Your task to perform on an android device: Is it going to rain this weekend? Image 0: 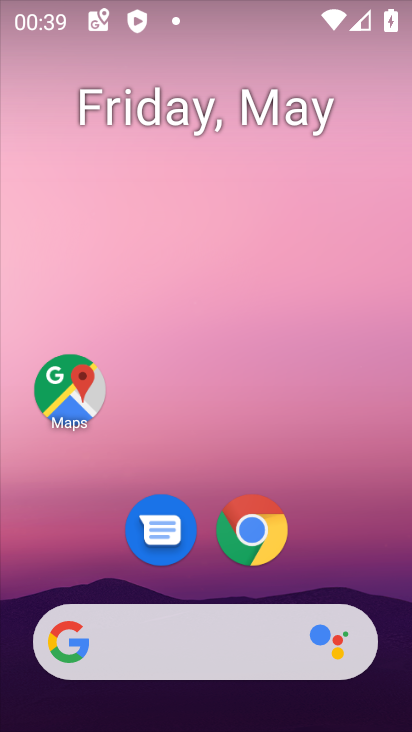
Step 0: drag from (339, 568) to (238, 143)
Your task to perform on an android device: Is it going to rain this weekend? Image 1: 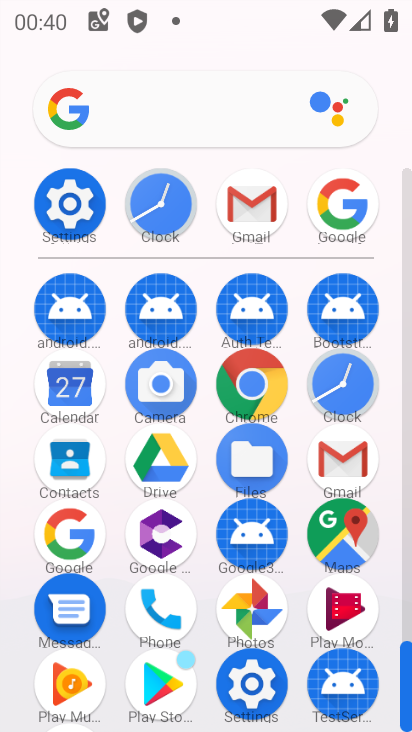
Step 1: click (337, 201)
Your task to perform on an android device: Is it going to rain this weekend? Image 2: 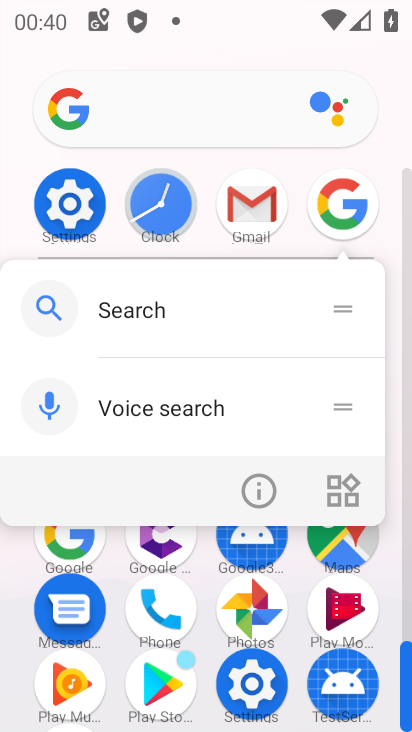
Step 2: click (337, 201)
Your task to perform on an android device: Is it going to rain this weekend? Image 3: 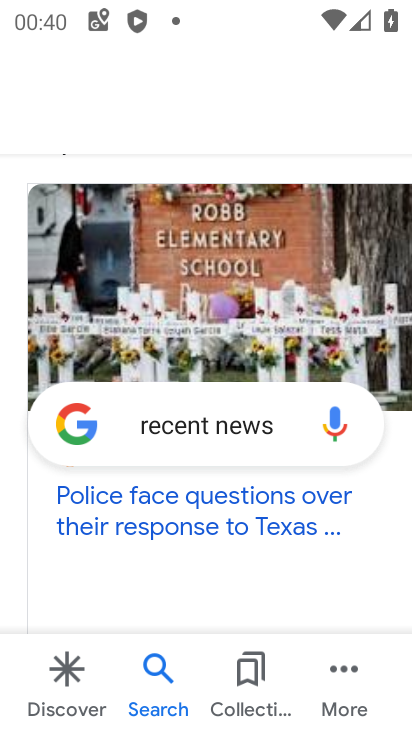
Step 3: click (273, 431)
Your task to perform on an android device: Is it going to rain this weekend? Image 4: 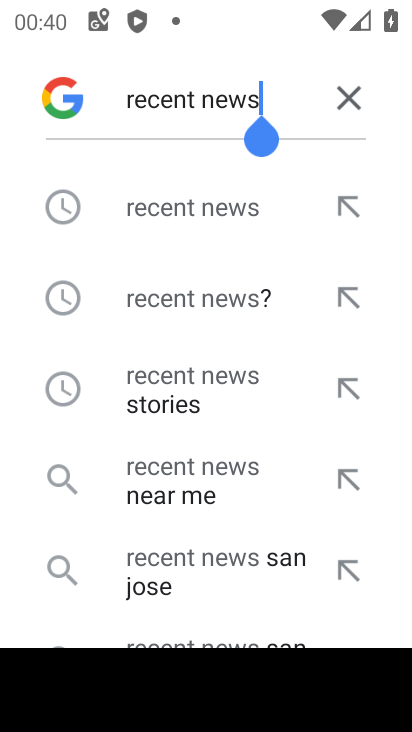
Step 4: click (351, 91)
Your task to perform on an android device: Is it going to rain this weekend? Image 5: 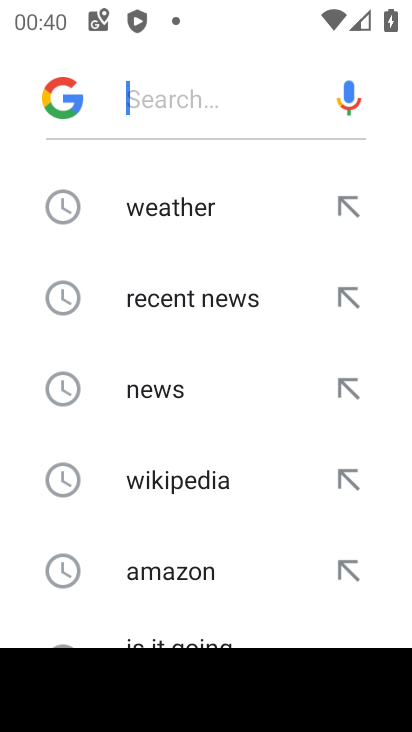
Step 5: type "Is it going to rain this weekend"
Your task to perform on an android device: Is it going to rain this weekend? Image 6: 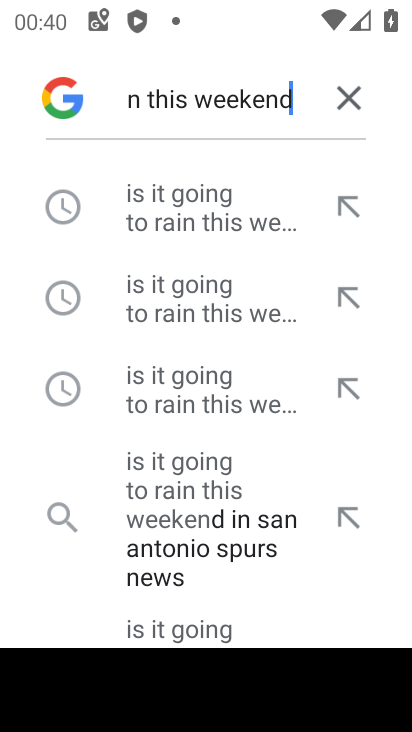
Step 6: type ""
Your task to perform on an android device: Is it going to rain this weekend? Image 7: 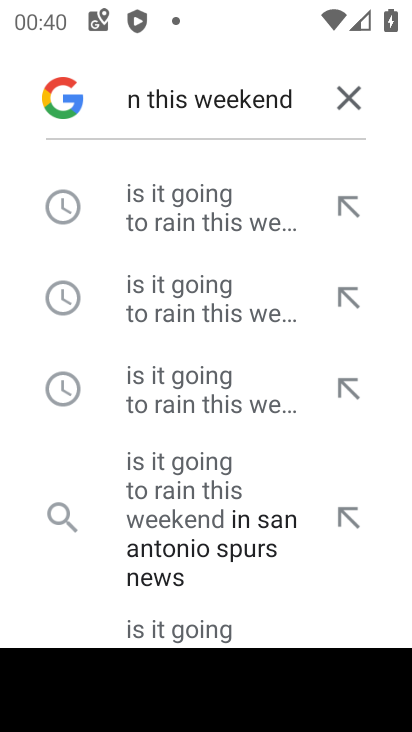
Step 7: click (215, 233)
Your task to perform on an android device: Is it going to rain this weekend? Image 8: 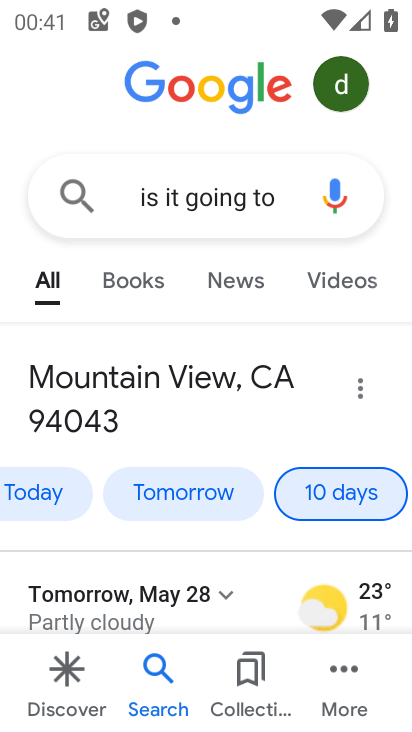
Step 8: task complete